Your task to perform on an android device: check android version Image 0: 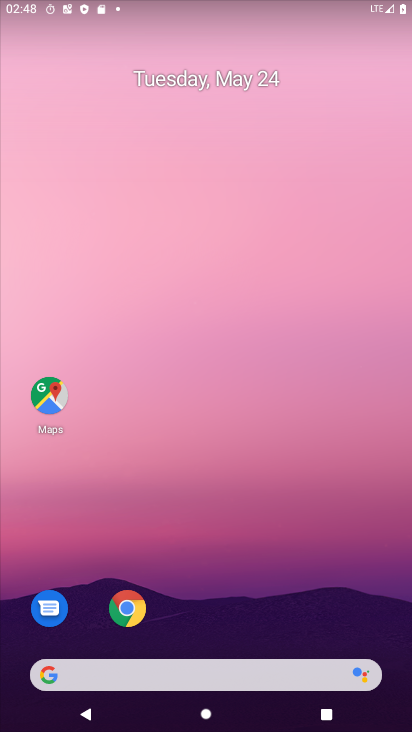
Step 0: drag from (239, 628) to (160, 164)
Your task to perform on an android device: check android version Image 1: 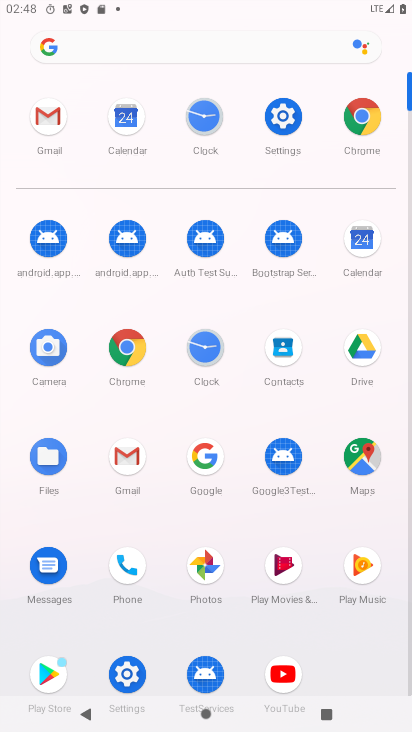
Step 1: click (289, 111)
Your task to perform on an android device: check android version Image 2: 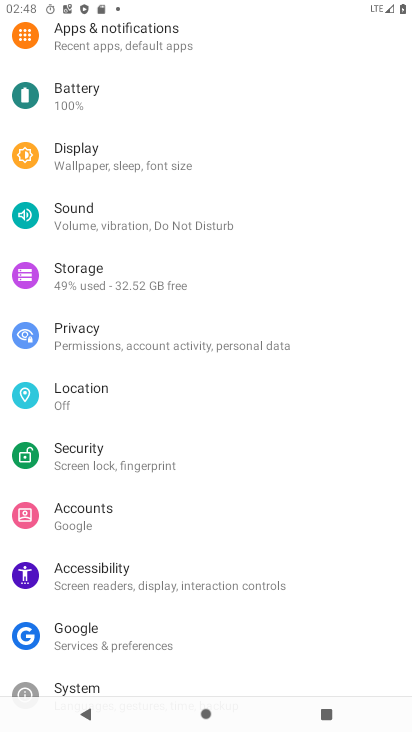
Step 2: task complete